Your task to perform on an android device: Open location settings Image 0: 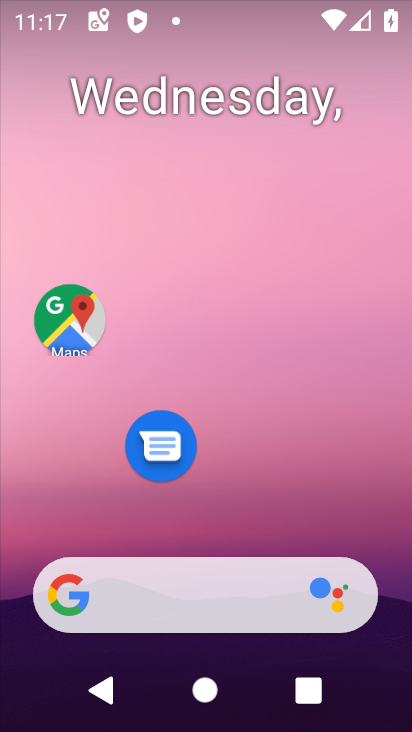
Step 0: press home button
Your task to perform on an android device: Open location settings Image 1: 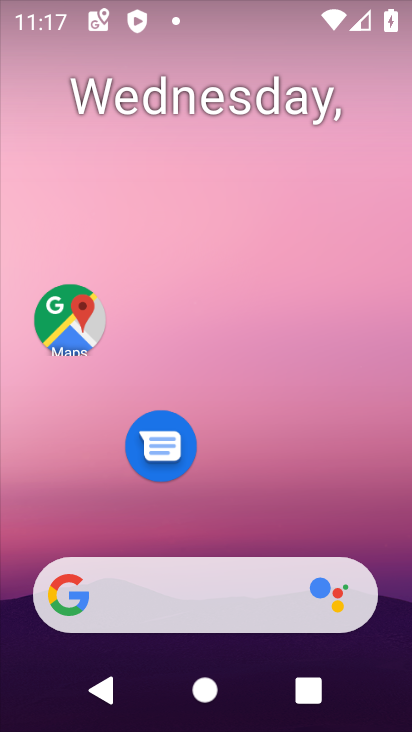
Step 1: drag from (237, 456) to (77, 98)
Your task to perform on an android device: Open location settings Image 2: 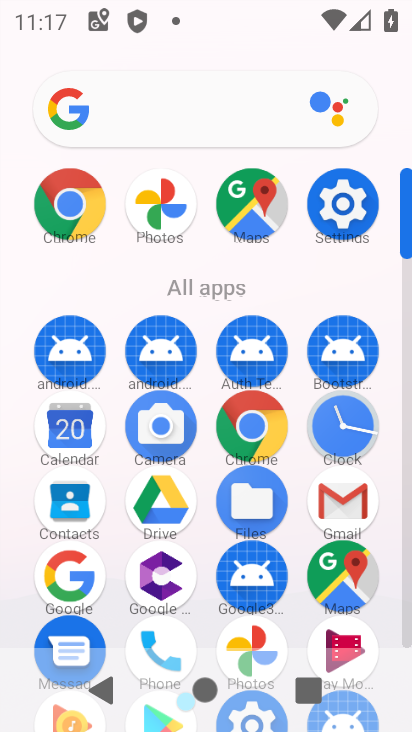
Step 2: click (365, 211)
Your task to perform on an android device: Open location settings Image 3: 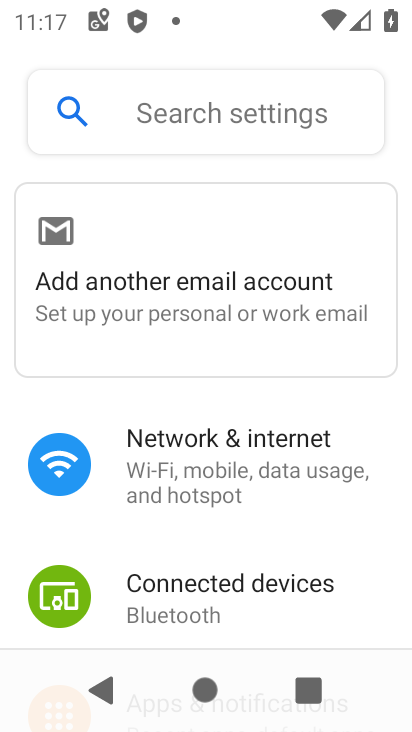
Step 3: drag from (183, 530) to (173, 163)
Your task to perform on an android device: Open location settings Image 4: 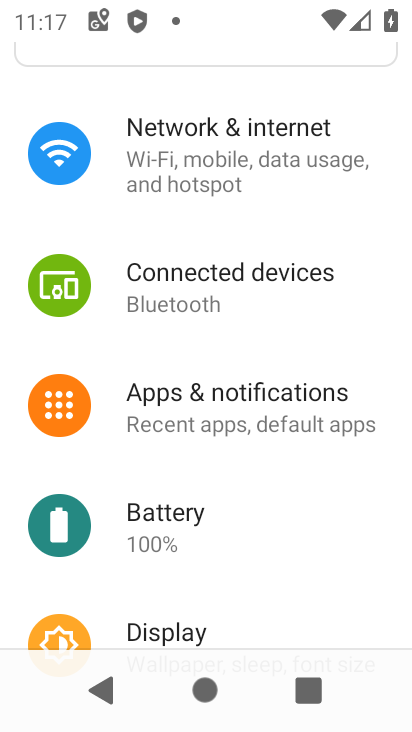
Step 4: drag from (184, 572) to (229, 230)
Your task to perform on an android device: Open location settings Image 5: 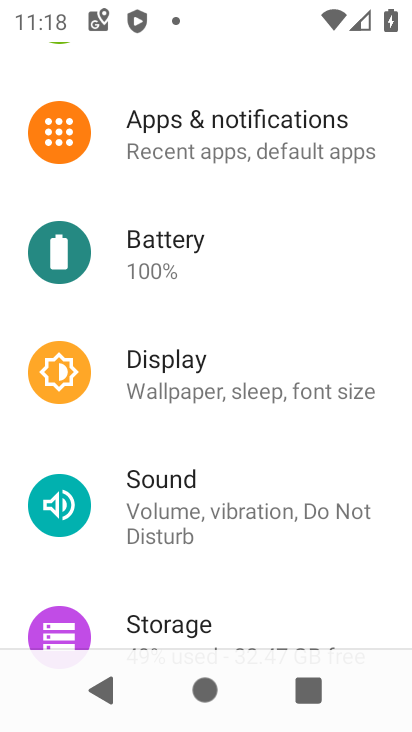
Step 5: drag from (222, 575) to (218, 143)
Your task to perform on an android device: Open location settings Image 6: 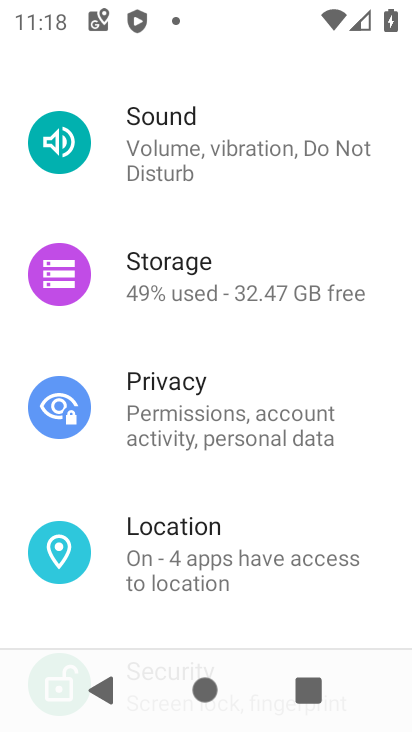
Step 6: click (151, 543)
Your task to perform on an android device: Open location settings Image 7: 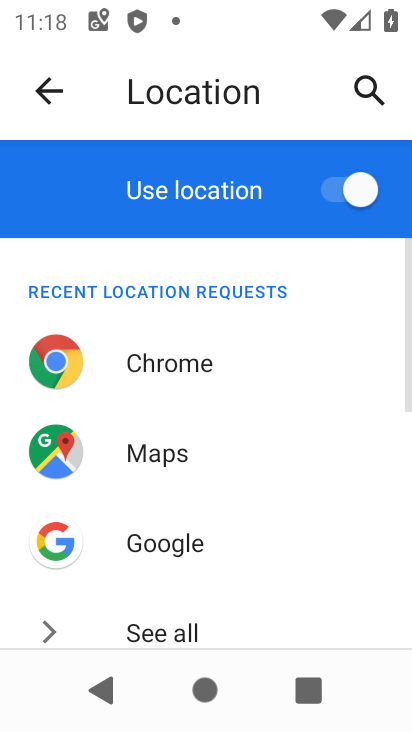
Step 7: drag from (313, 610) to (273, 91)
Your task to perform on an android device: Open location settings Image 8: 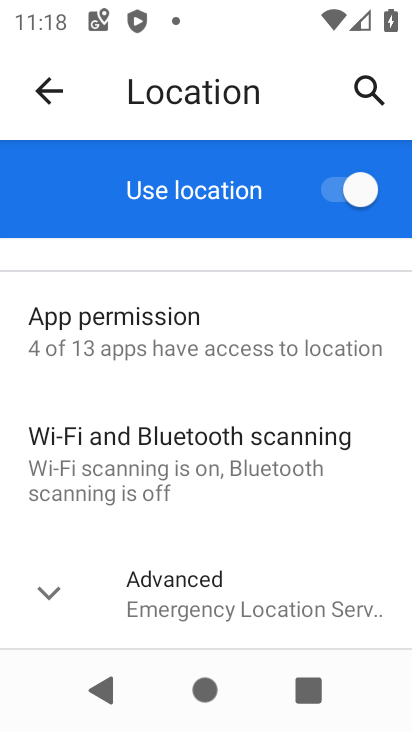
Step 8: click (180, 584)
Your task to perform on an android device: Open location settings Image 9: 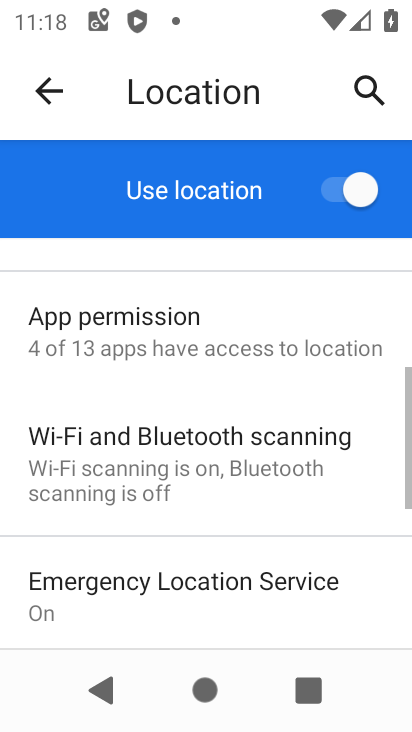
Step 9: task complete